Your task to perform on an android device: Open my contact list Image 0: 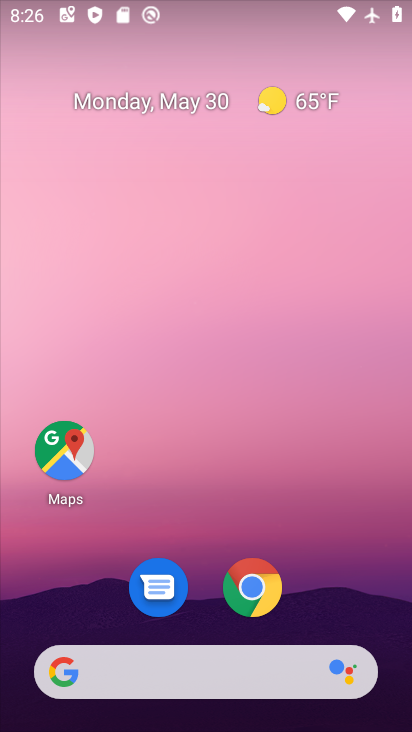
Step 0: press home button
Your task to perform on an android device: Open my contact list Image 1: 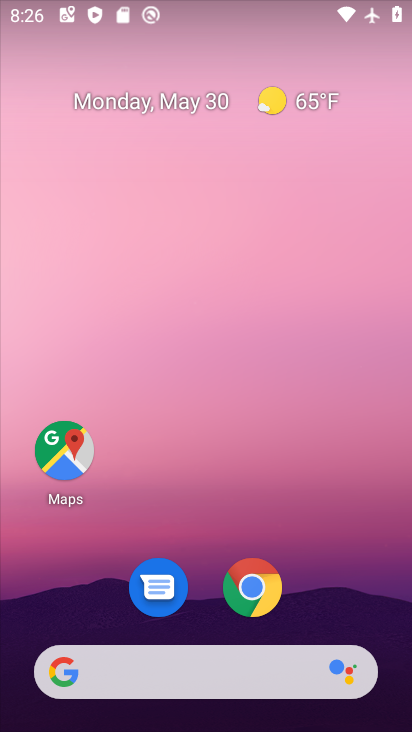
Step 1: drag from (137, 675) to (276, 250)
Your task to perform on an android device: Open my contact list Image 2: 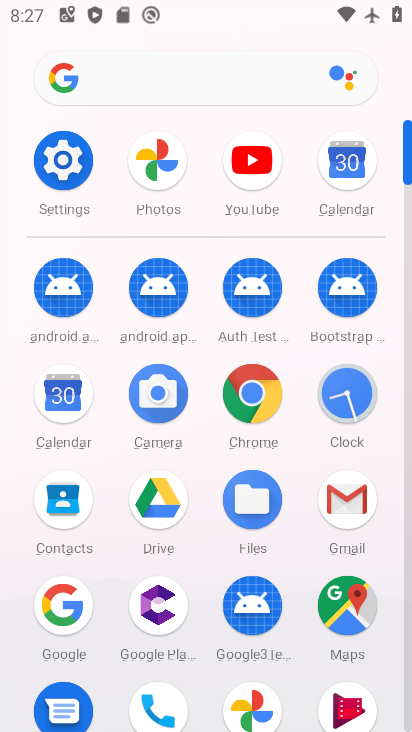
Step 2: drag from (187, 643) to (257, 324)
Your task to perform on an android device: Open my contact list Image 3: 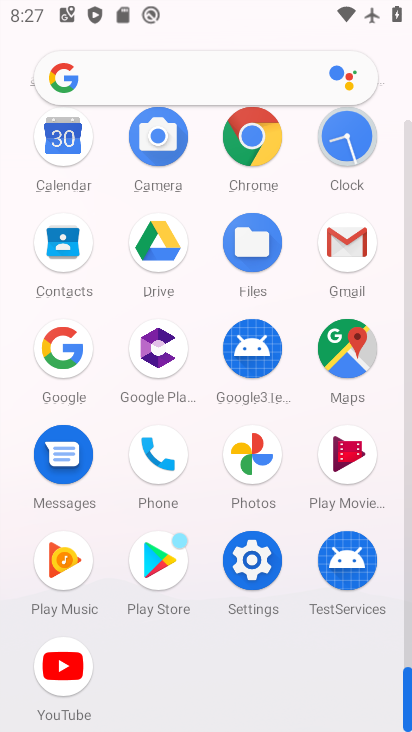
Step 3: click (65, 247)
Your task to perform on an android device: Open my contact list Image 4: 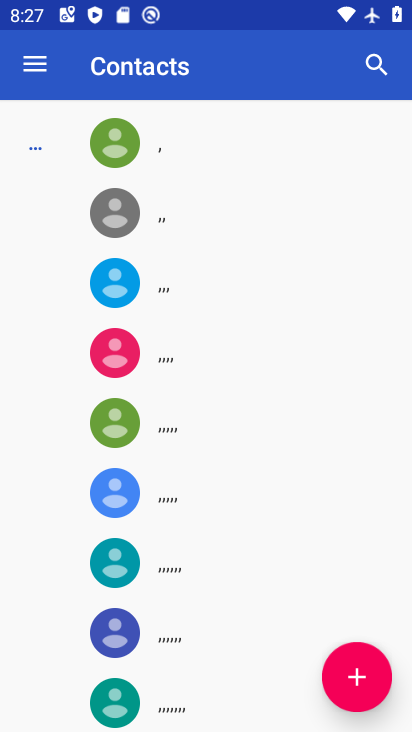
Step 4: task complete